Your task to perform on an android device: turn off data saver in the chrome app Image 0: 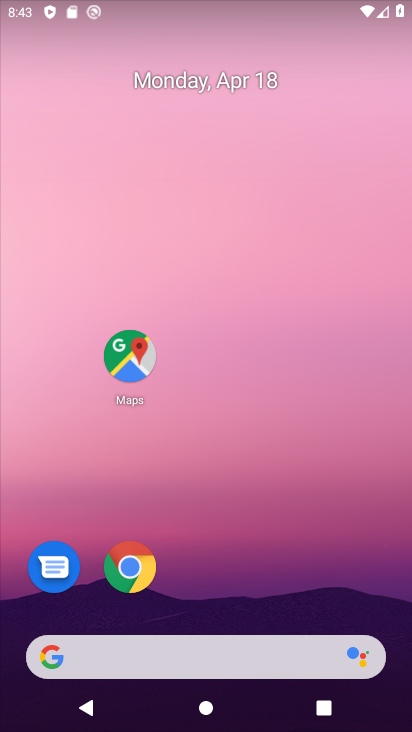
Step 0: click (246, 270)
Your task to perform on an android device: turn off data saver in the chrome app Image 1: 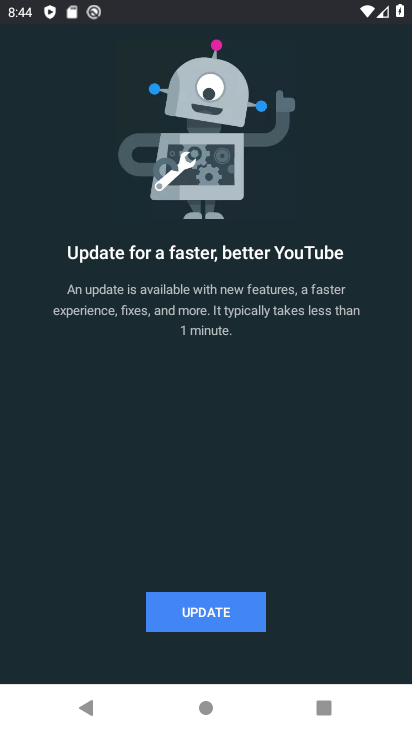
Step 1: press home button
Your task to perform on an android device: turn off data saver in the chrome app Image 2: 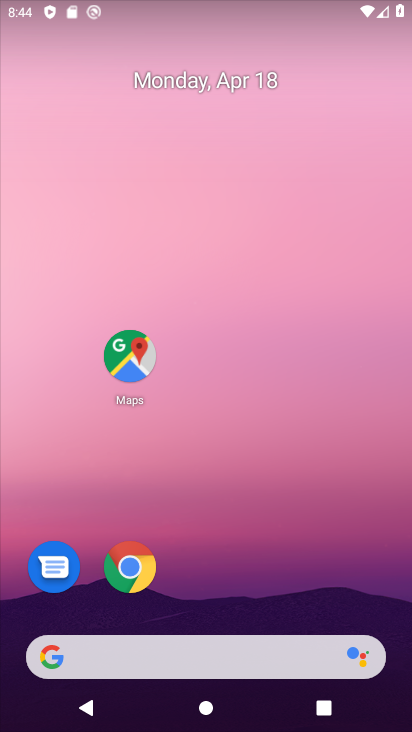
Step 2: drag from (216, 673) to (333, 0)
Your task to perform on an android device: turn off data saver in the chrome app Image 3: 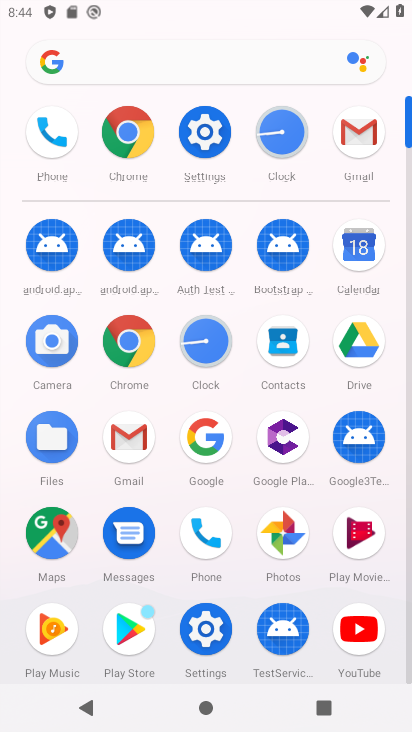
Step 3: click (137, 145)
Your task to perform on an android device: turn off data saver in the chrome app Image 4: 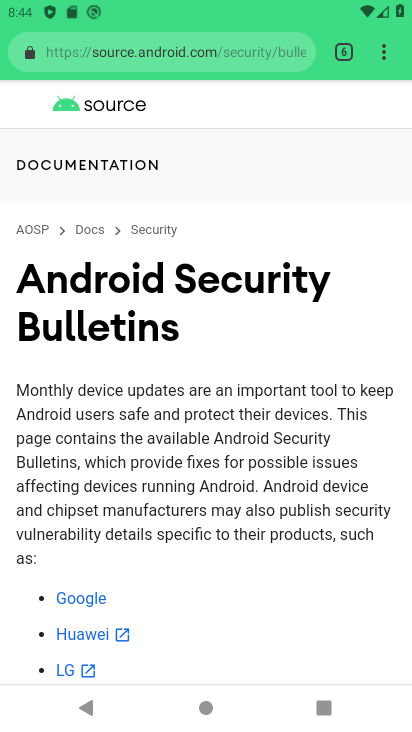
Step 4: click (383, 51)
Your task to perform on an android device: turn off data saver in the chrome app Image 5: 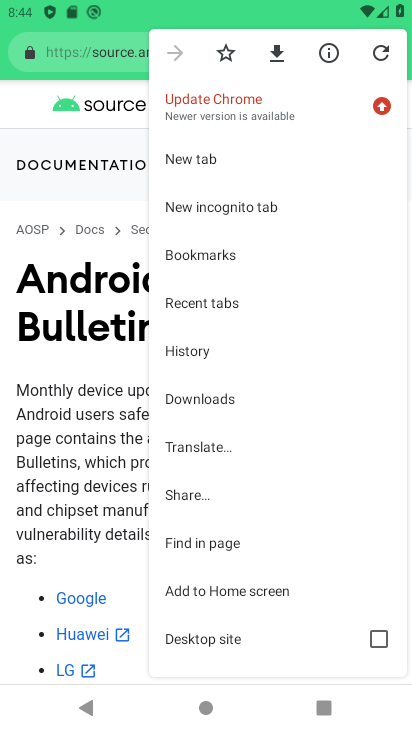
Step 5: drag from (216, 613) to (219, 476)
Your task to perform on an android device: turn off data saver in the chrome app Image 6: 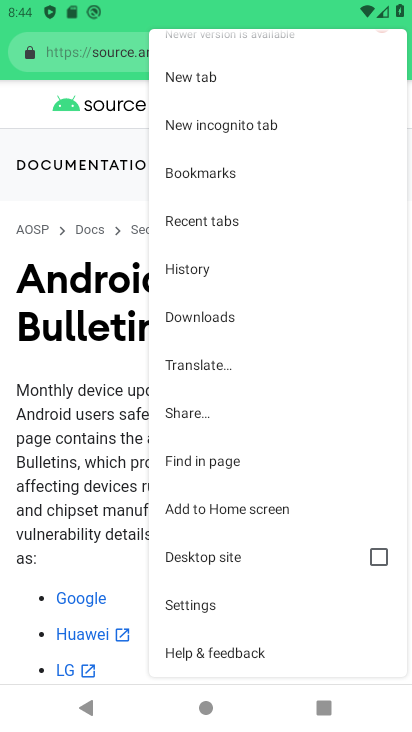
Step 6: click (198, 607)
Your task to perform on an android device: turn off data saver in the chrome app Image 7: 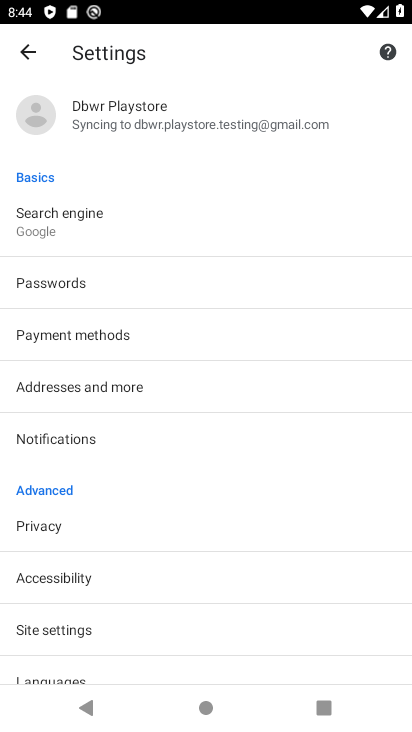
Step 7: drag from (85, 638) to (90, 504)
Your task to perform on an android device: turn off data saver in the chrome app Image 8: 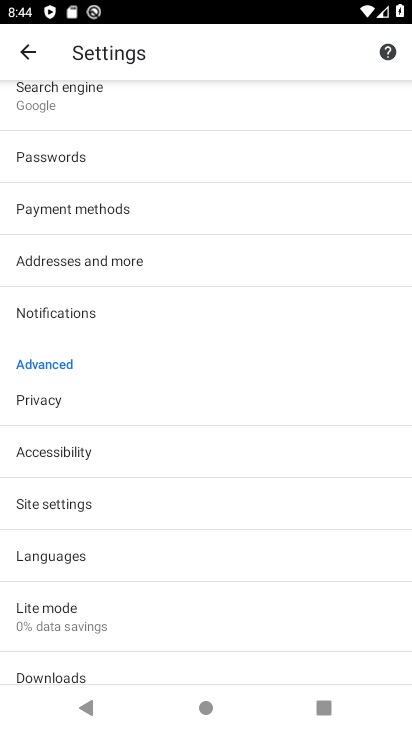
Step 8: click (58, 615)
Your task to perform on an android device: turn off data saver in the chrome app Image 9: 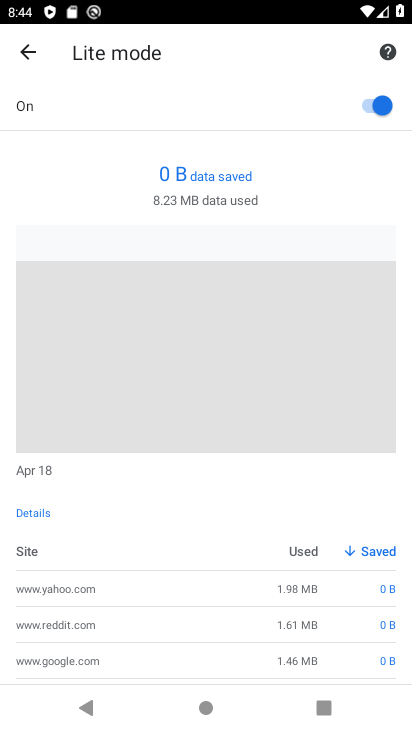
Step 9: task complete